Your task to perform on an android device: Open Yahoo.com Image 0: 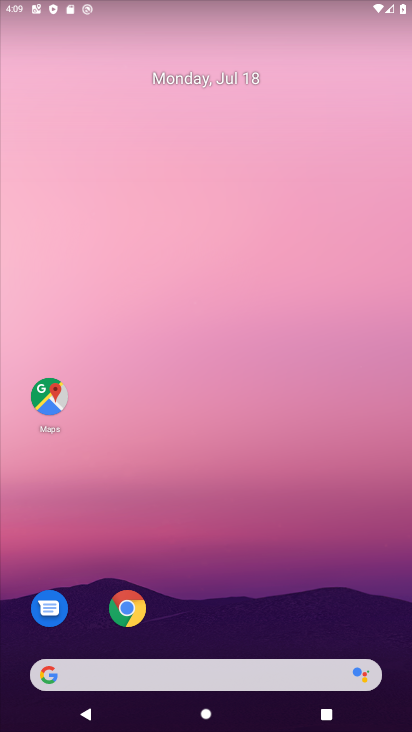
Step 0: click (140, 604)
Your task to perform on an android device: Open Yahoo.com Image 1: 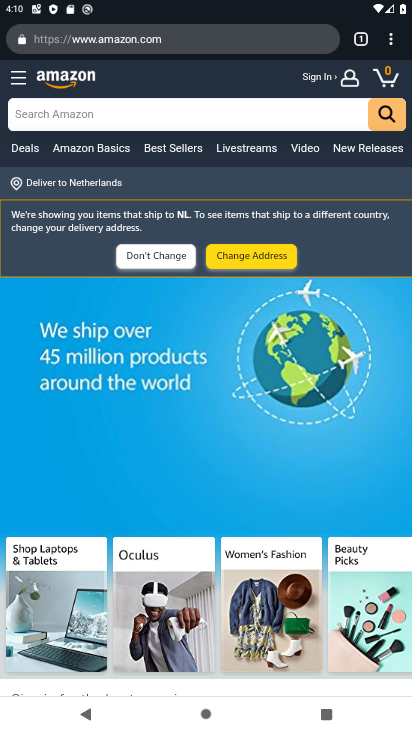
Step 1: click (260, 42)
Your task to perform on an android device: Open Yahoo.com Image 2: 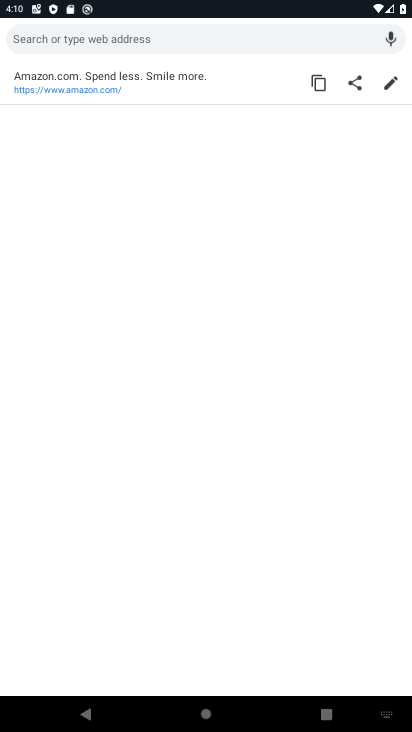
Step 2: type "yahoo.com"
Your task to perform on an android device: Open Yahoo.com Image 3: 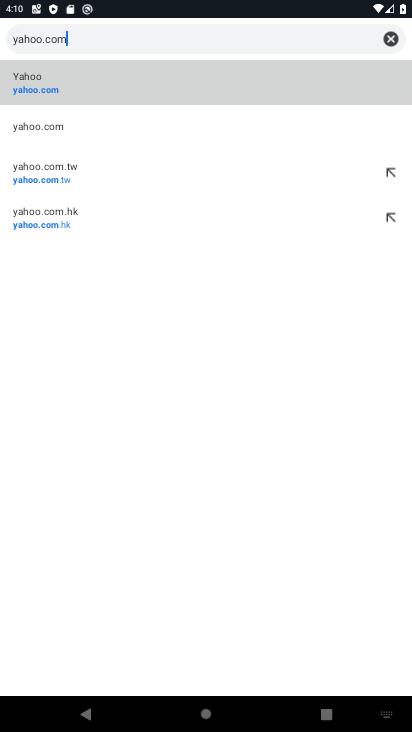
Step 3: click (120, 58)
Your task to perform on an android device: Open Yahoo.com Image 4: 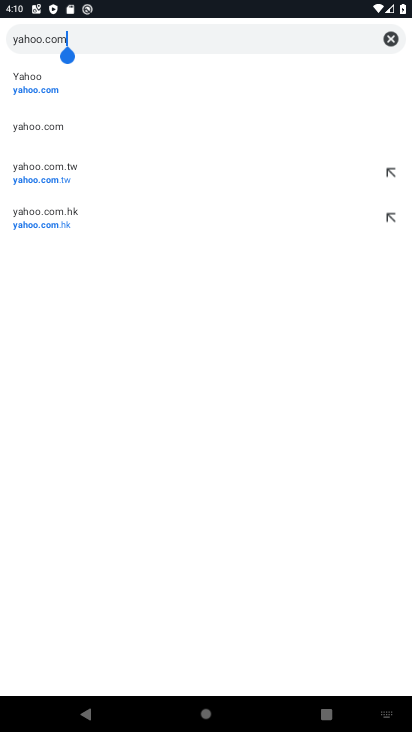
Step 4: click (118, 73)
Your task to perform on an android device: Open Yahoo.com Image 5: 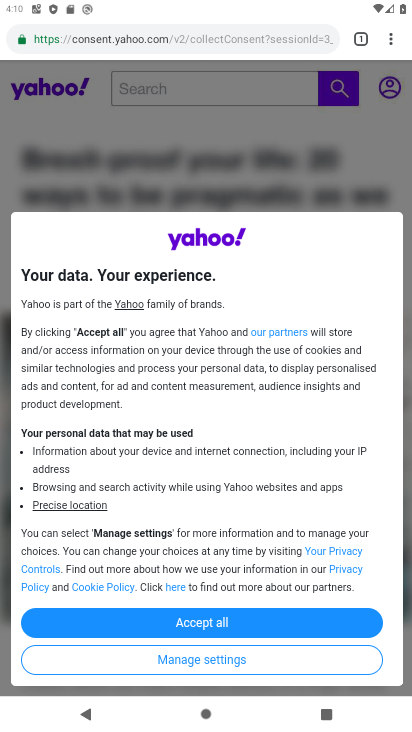
Step 5: click (153, 111)
Your task to perform on an android device: Open Yahoo.com Image 6: 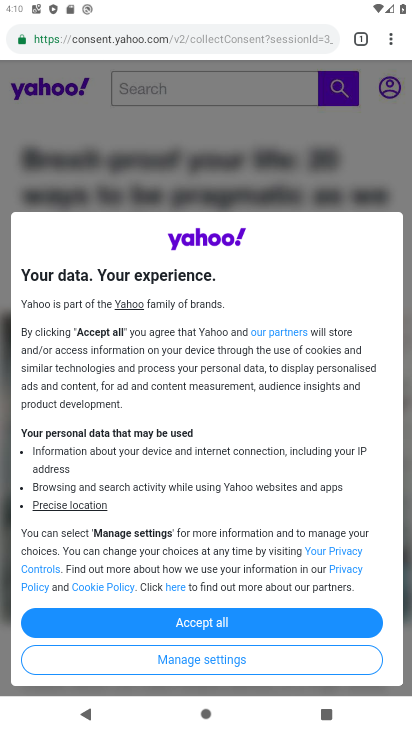
Step 6: task complete